Your task to perform on an android device: allow cookies in the chrome app Image 0: 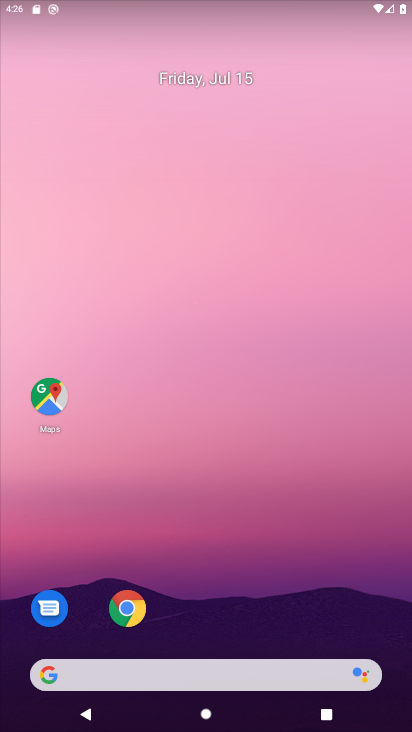
Step 0: click (137, 617)
Your task to perform on an android device: allow cookies in the chrome app Image 1: 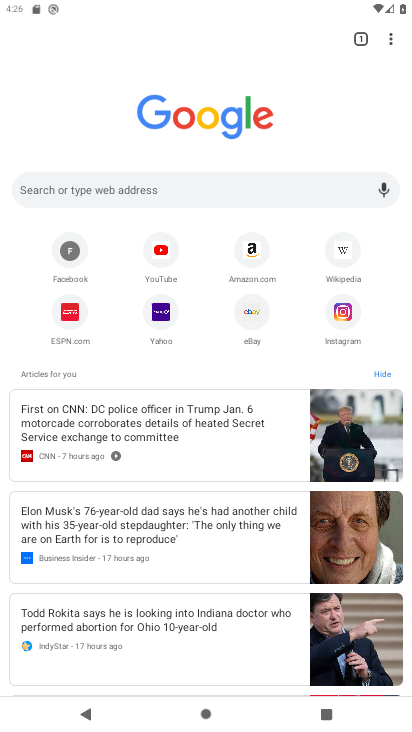
Step 1: click (392, 37)
Your task to perform on an android device: allow cookies in the chrome app Image 2: 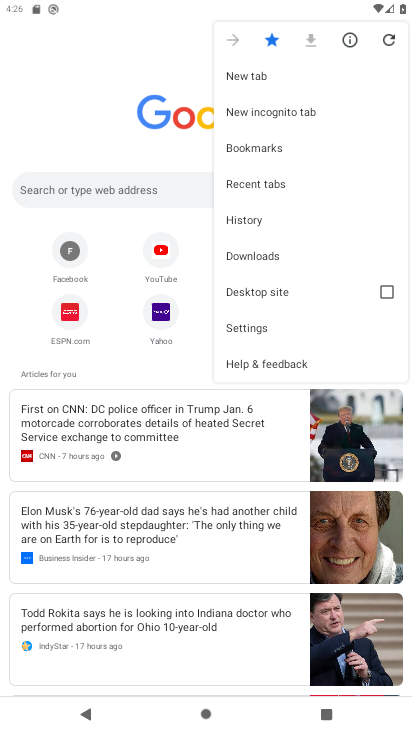
Step 2: click (262, 327)
Your task to perform on an android device: allow cookies in the chrome app Image 3: 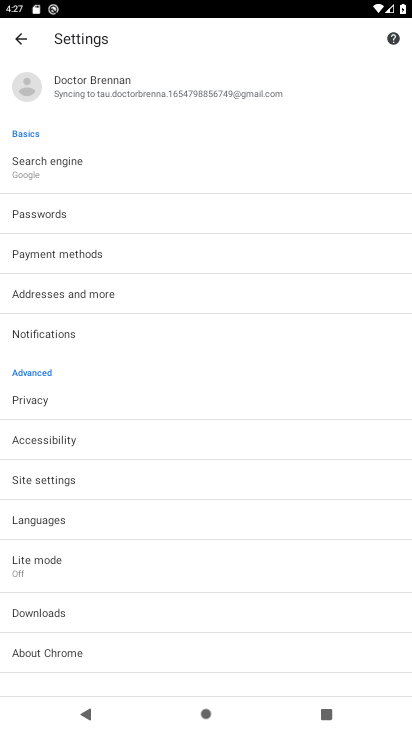
Step 3: click (61, 479)
Your task to perform on an android device: allow cookies in the chrome app Image 4: 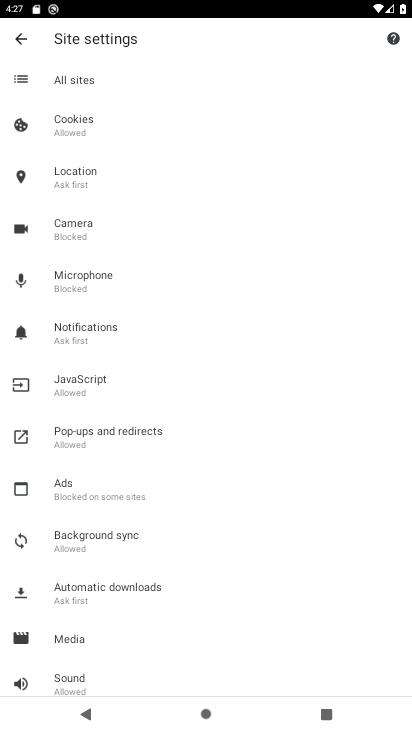
Step 4: click (105, 117)
Your task to perform on an android device: allow cookies in the chrome app Image 5: 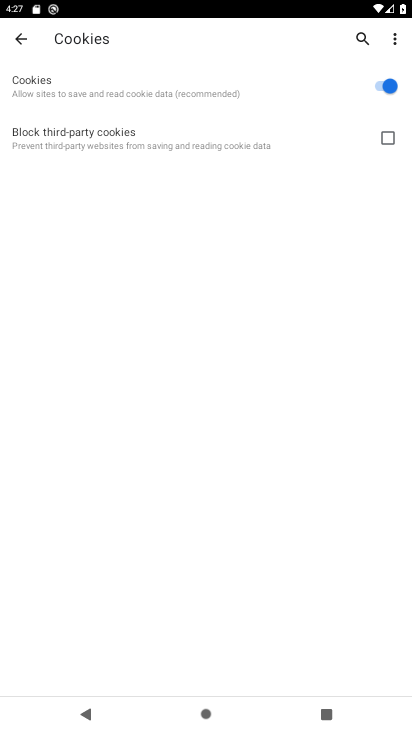
Step 5: task complete